Your task to perform on an android device: Go to location settings Image 0: 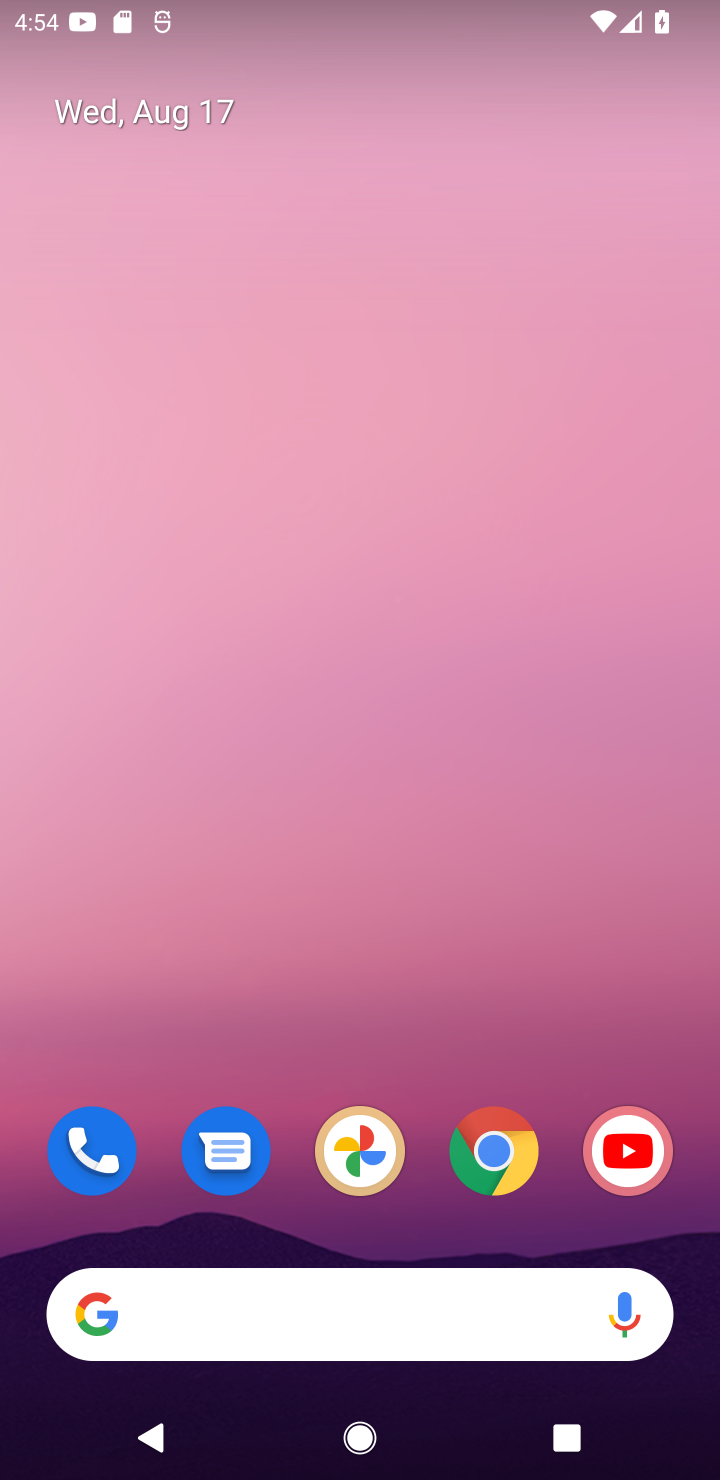
Step 0: drag from (442, 1249) to (440, 329)
Your task to perform on an android device: Go to location settings Image 1: 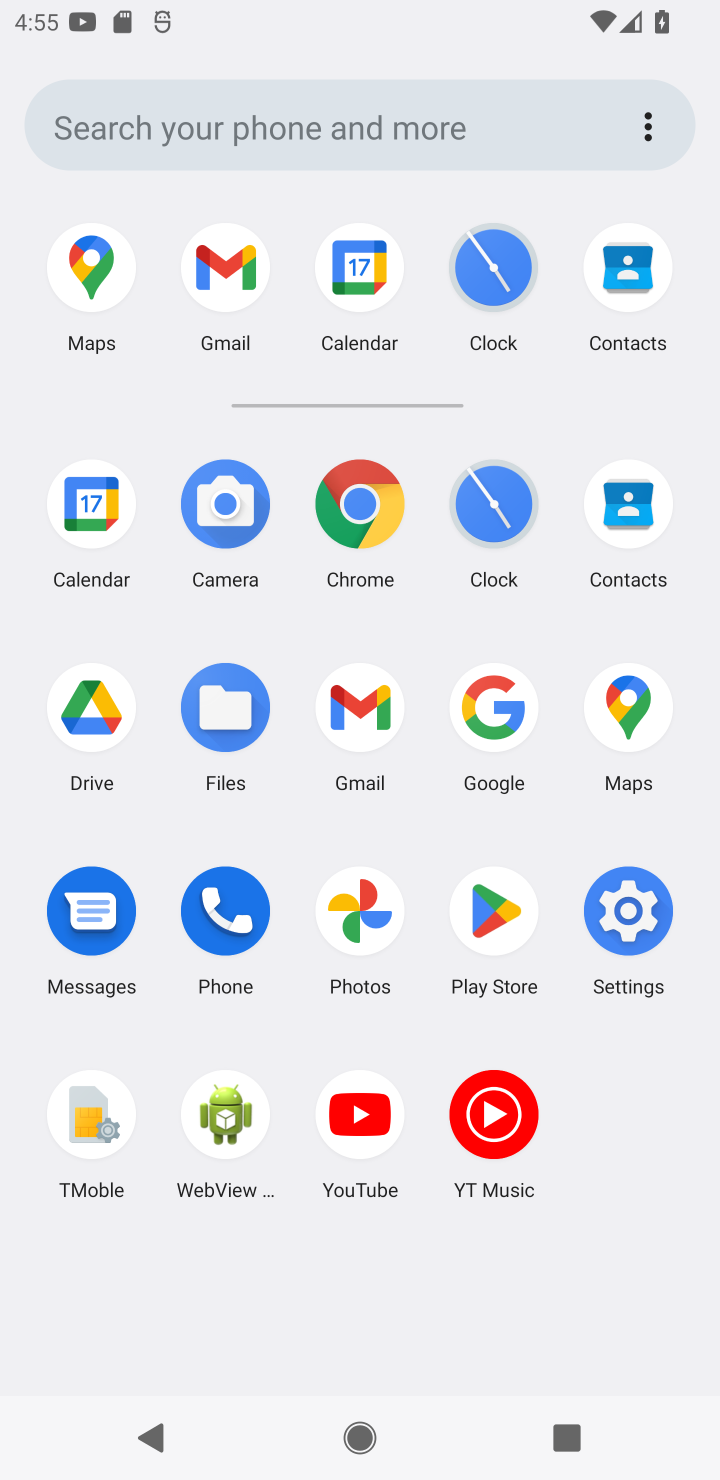
Step 1: click (604, 881)
Your task to perform on an android device: Go to location settings Image 2: 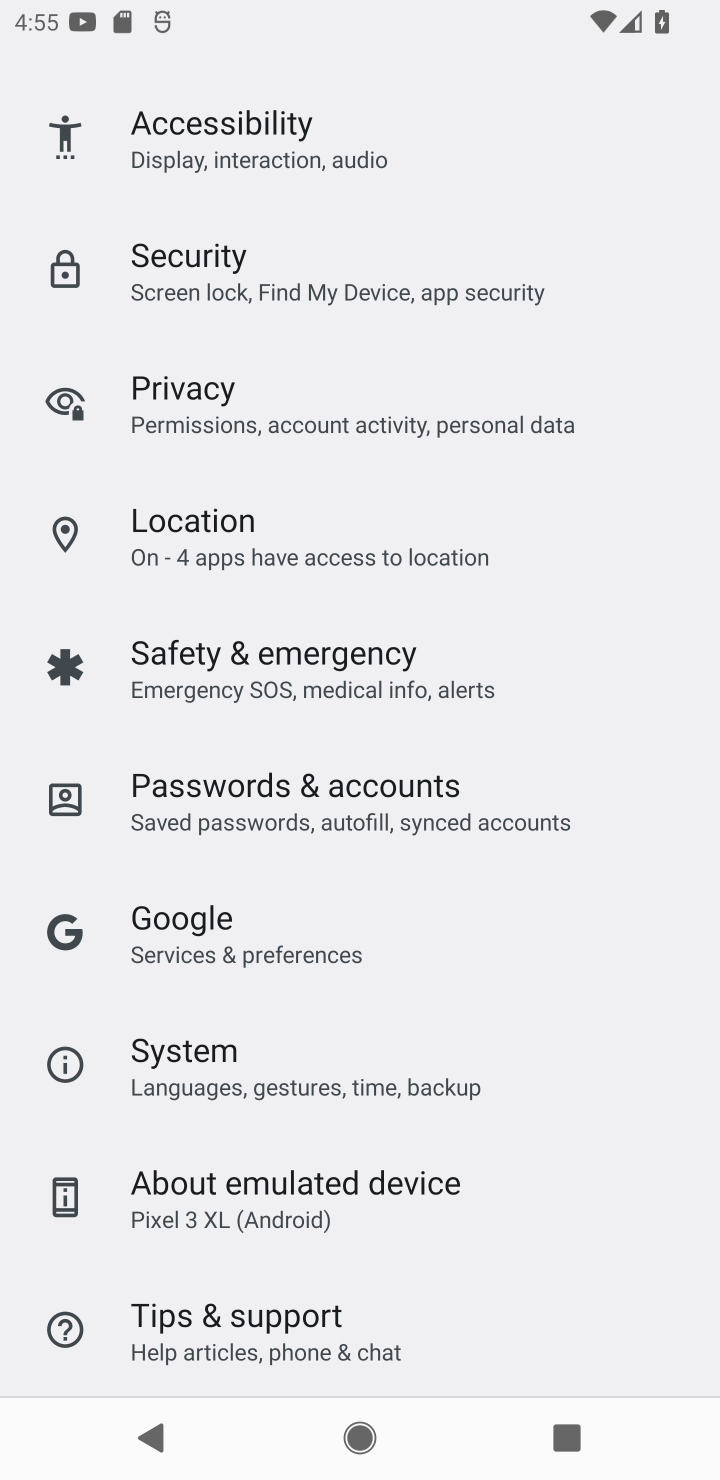
Step 2: click (263, 566)
Your task to perform on an android device: Go to location settings Image 3: 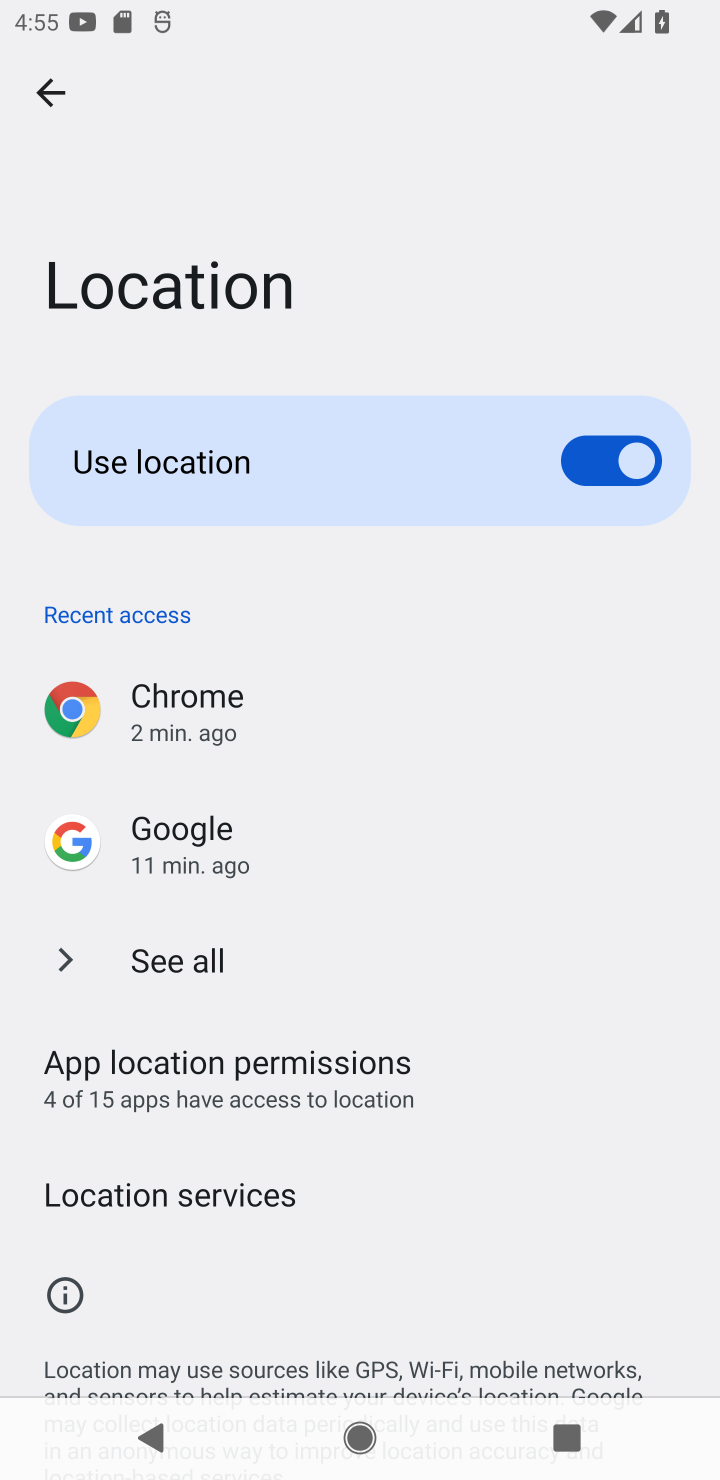
Step 3: task complete